Your task to perform on an android device: Open calendar and show me the second week of next month Image 0: 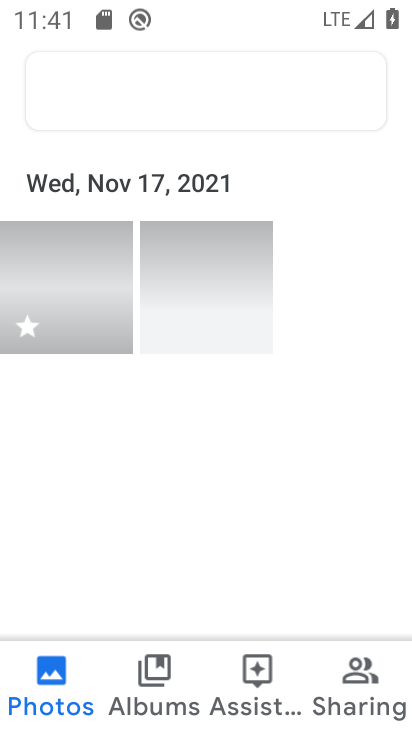
Step 0: drag from (273, 695) to (306, 444)
Your task to perform on an android device: Open calendar and show me the second week of next month Image 1: 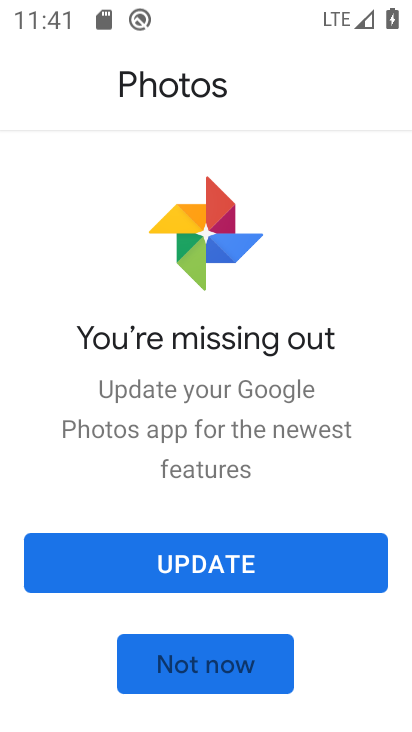
Step 1: press home button
Your task to perform on an android device: Open calendar and show me the second week of next month Image 2: 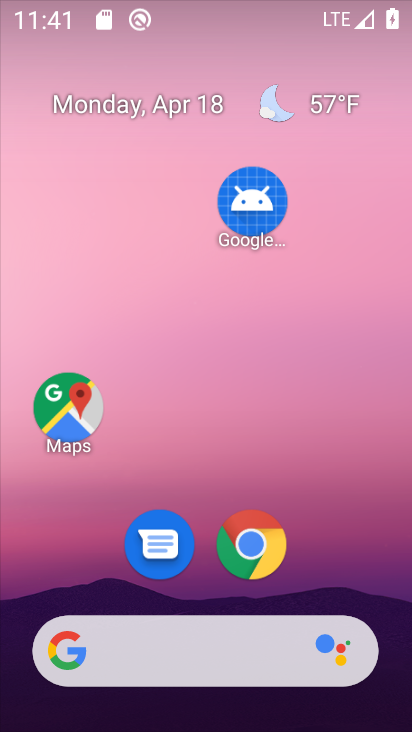
Step 2: drag from (307, 653) to (324, 224)
Your task to perform on an android device: Open calendar and show me the second week of next month Image 3: 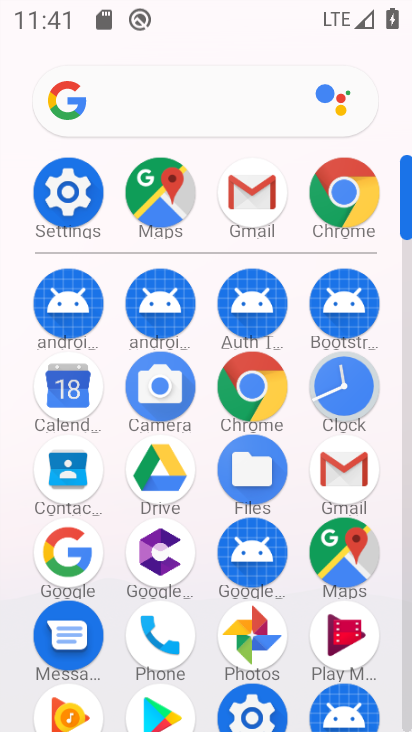
Step 3: drag from (205, 597) to (228, 421)
Your task to perform on an android device: Open calendar and show me the second week of next month Image 4: 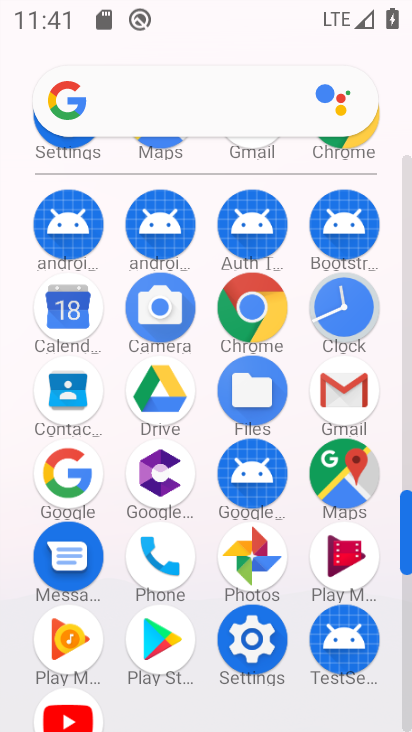
Step 4: click (67, 305)
Your task to perform on an android device: Open calendar and show me the second week of next month Image 5: 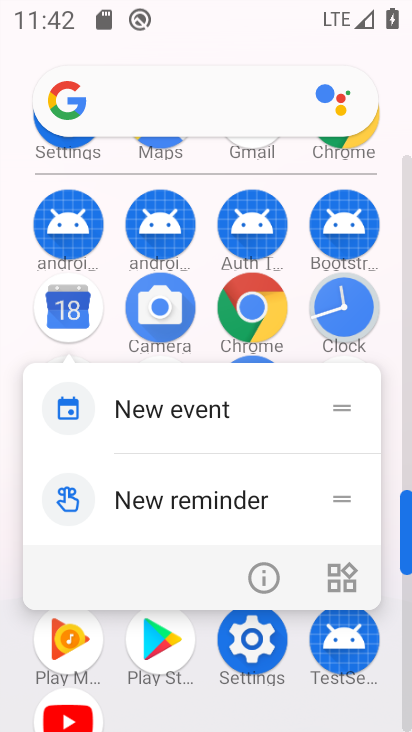
Step 5: click (58, 306)
Your task to perform on an android device: Open calendar and show me the second week of next month Image 6: 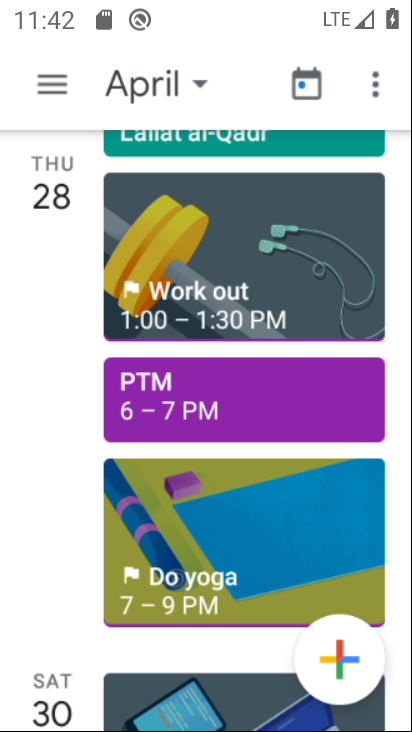
Step 6: click (58, 306)
Your task to perform on an android device: Open calendar and show me the second week of next month Image 7: 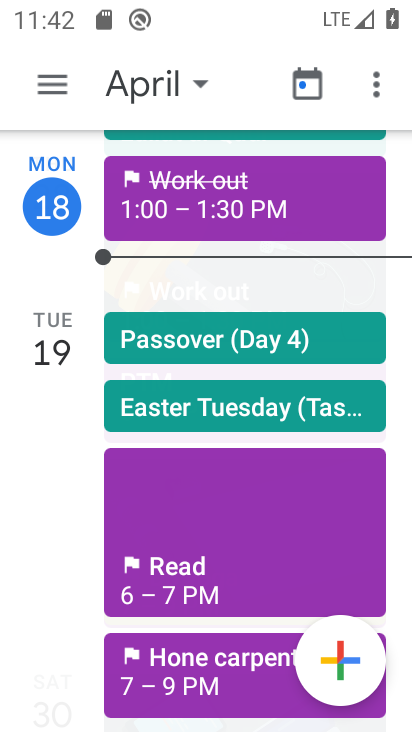
Step 7: click (75, 76)
Your task to perform on an android device: Open calendar and show me the second week of next month Image 8: 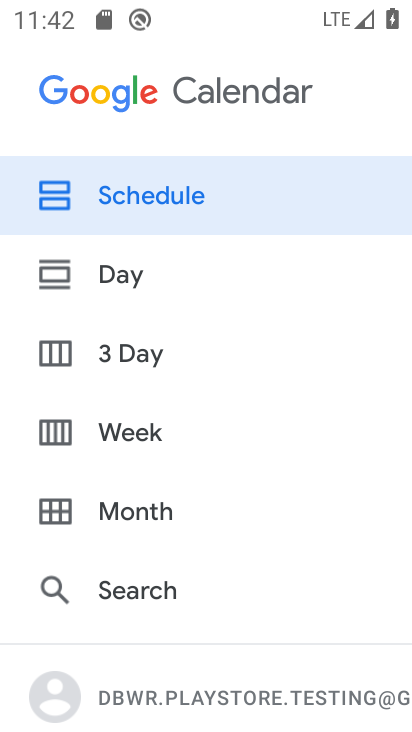
Step 8: click (136, 507)
Your task to perform on an android device: Open calendar and show me the second week of next month Image 9: 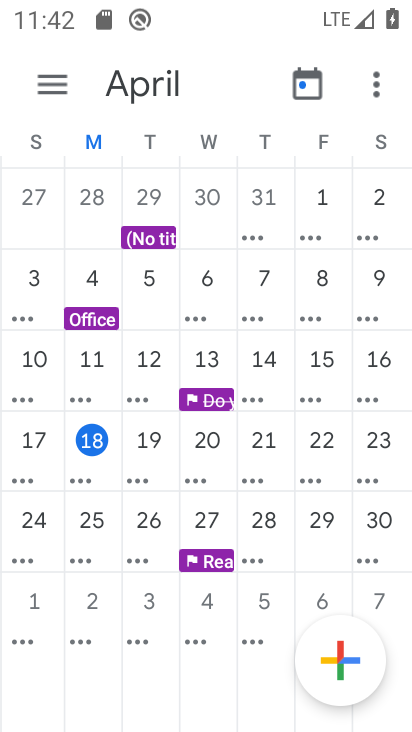
Step 9: task complete